Your task to perform on an android device: Do I have any events this weekend? Image 0: 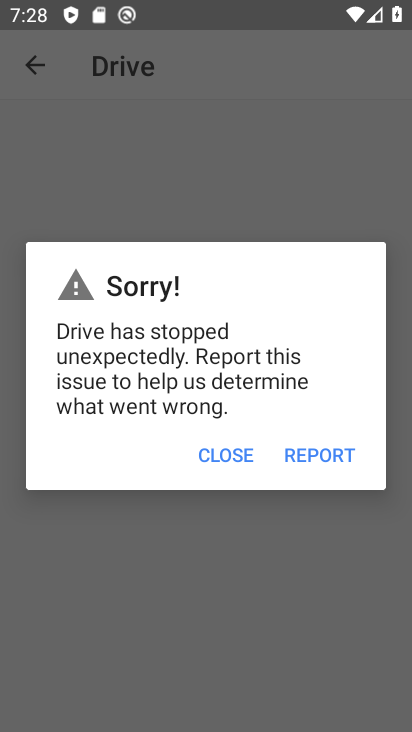
Step 0: press home button
Your task to perform on an android device: Do I have any events this weekend? Image 1: 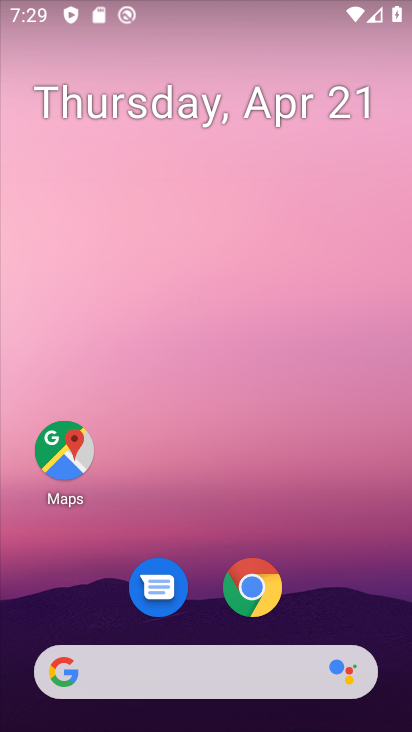
Step 1: drag from (362, 589) to (354, 285)
Your task to perform on an android device: Do I have any events this weekend? Image 2: 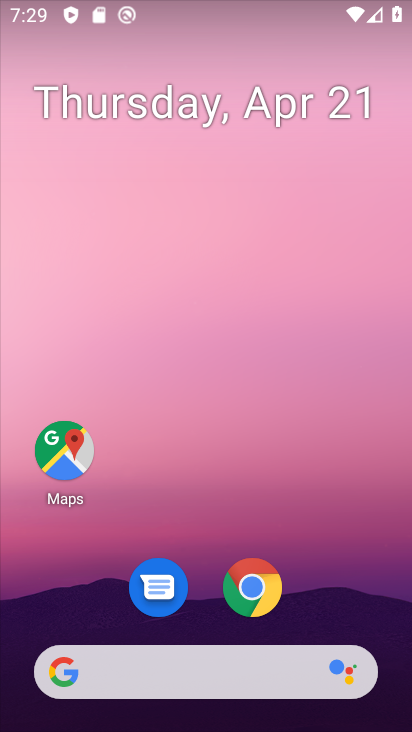
Step 2: drag from (377, 584) to (348, 198)
Your task to perform on an android device: Do I have any events this weekend? Image 3: 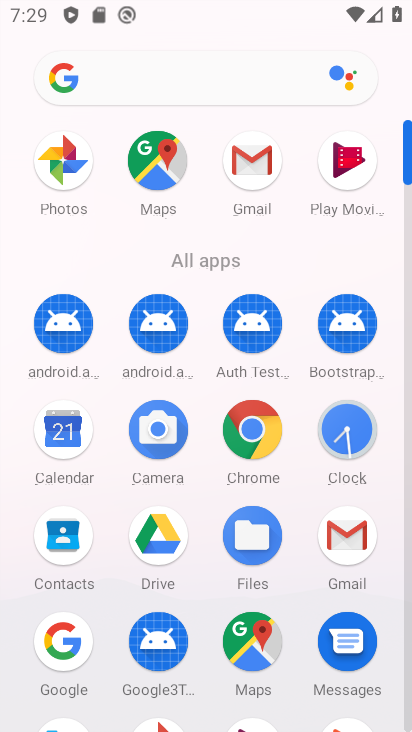
Step 3: click (64, 440)
Your task to perform on an android device: Do I have any events this weekend? Image 4: 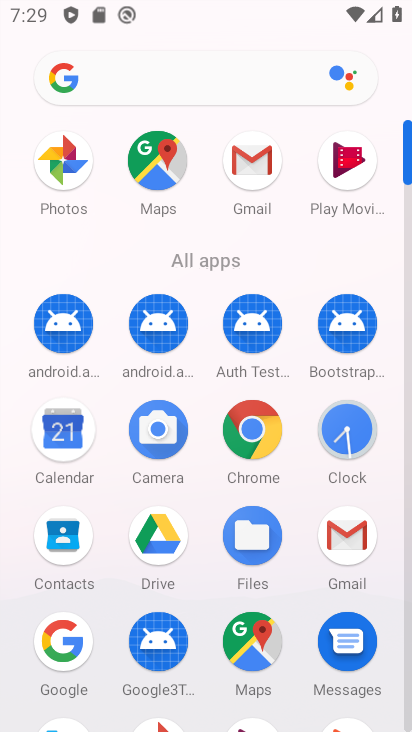
Step 4: click (64, 429)
Your task to perform on an android device: Do I have any events this weekend? Image 5: 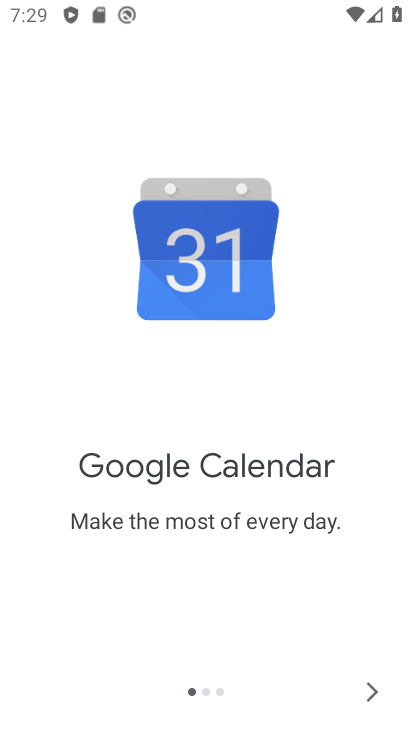
Step 5: click (372, 683)
Your task to perform on an android device: Do I have any events this weekend? Image 6: 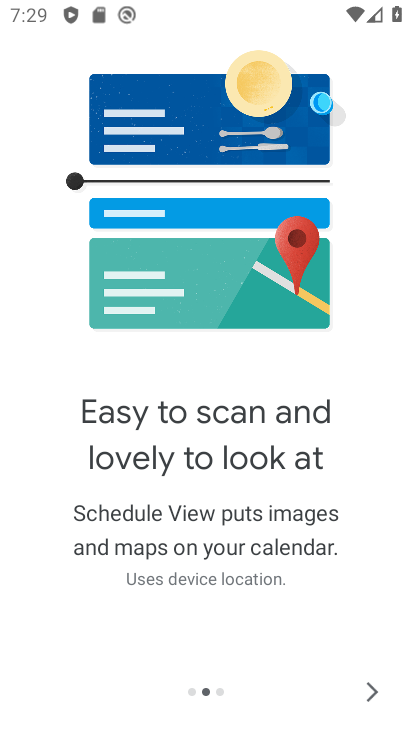
Step 6: click (372, 683)
Your task to perform on an android device: Do I have any events this weekend? Image 7: 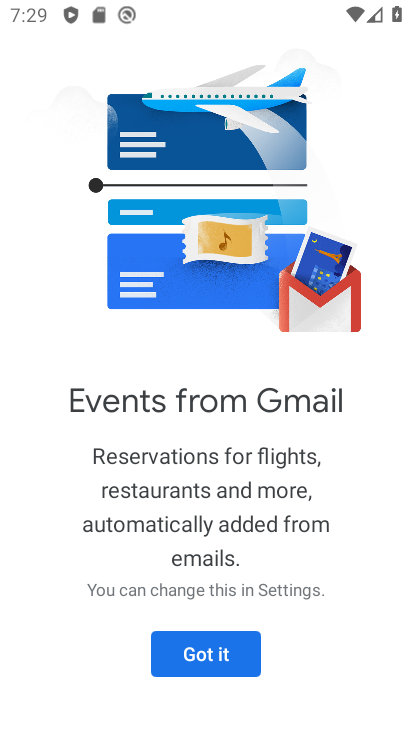
Step 7: click (229, 660)
Your task to perform on an android device: Do I have any events this weekend? Image 8: 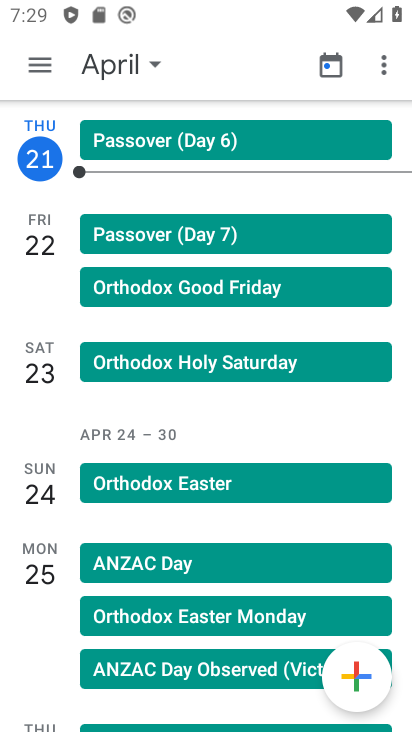
Step 8: click (43, 65)
Your task to perform on an android device: Do I have any events this weekend? Image 9: 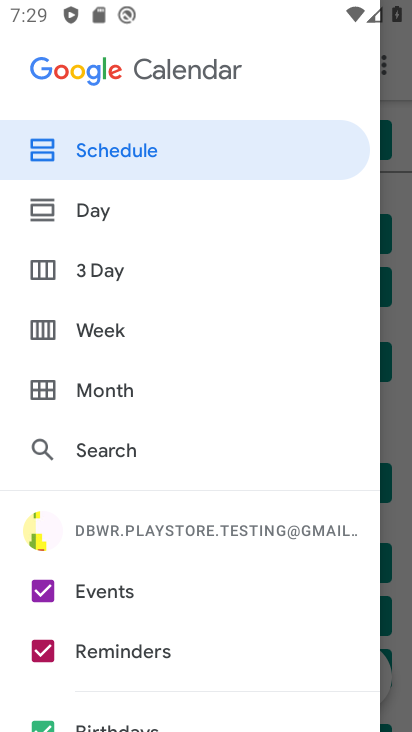
Step 9: click (75, 326)
Your task to perform on an android device: Do I have any events this weekend? Image 10: 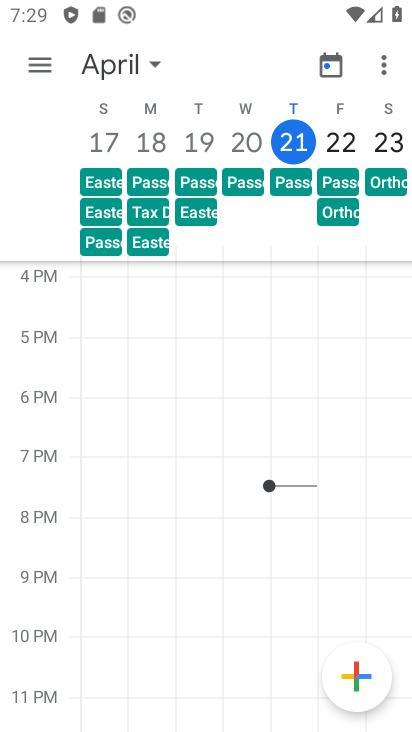
Step 10: task complete